Your task to perform on an android device: Open the web browser Image 0: 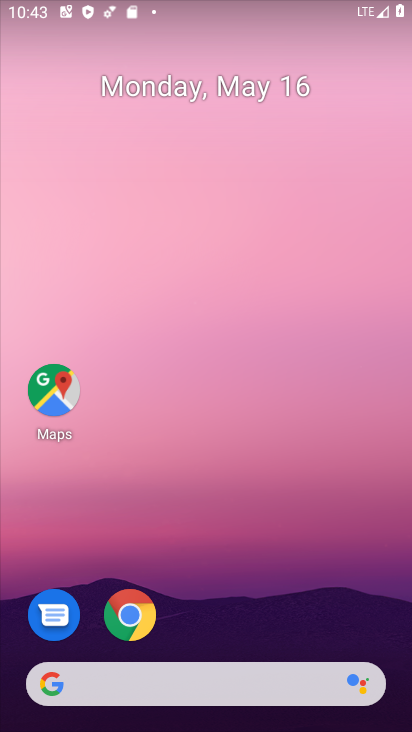
Step 0: drag from (260, 671) to (296, 210)
Your task to perform on an android device: Open the web browser Image 1: 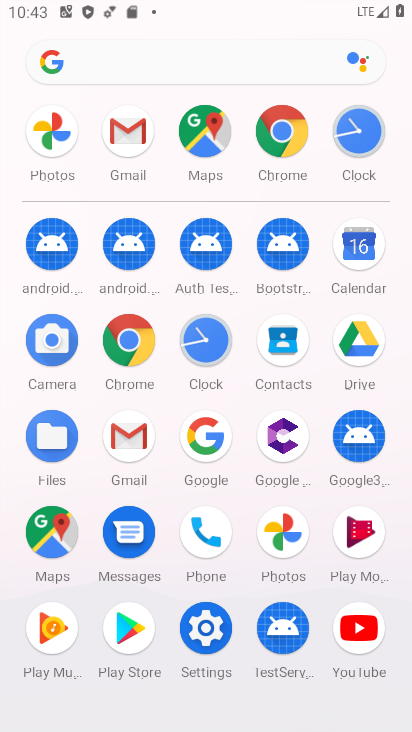
Step 1: click (285, 171)
Your task to perform on an android device: Open the web browser Image 2: 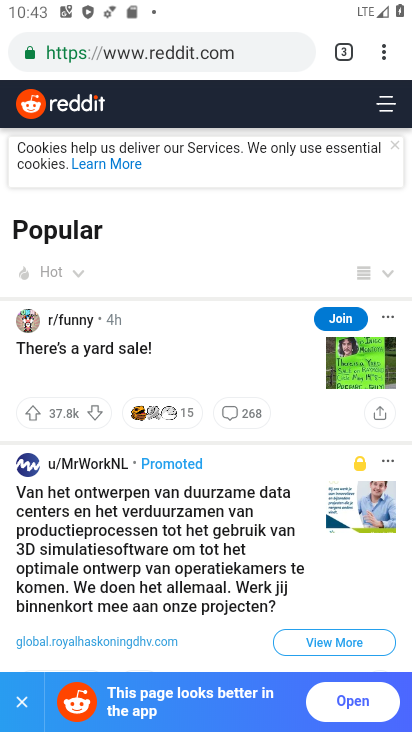
Step 2: task complete